Your task to perform on an android device: Go to CNN.com Image 0: 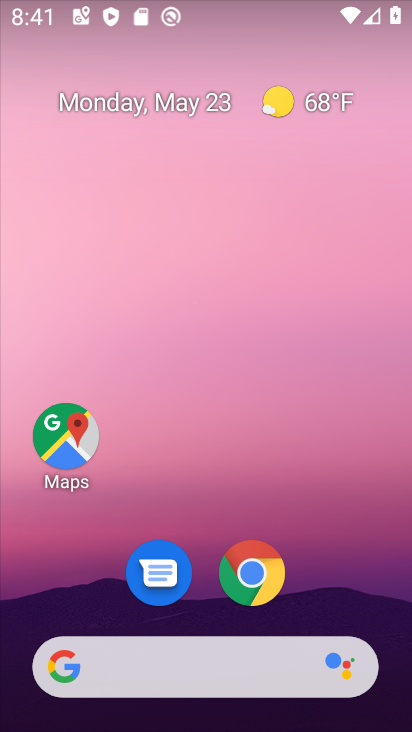
Step 0: click (261, 573)
Your task to perform on an android device: Go to CNN.com Image 1: 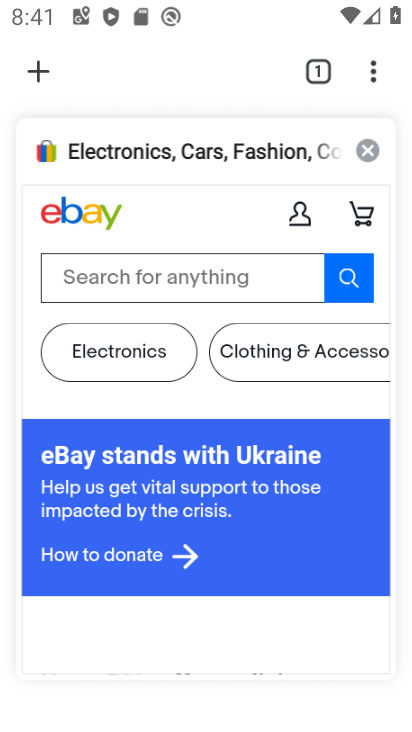
Step 1: click (32, 90)
Your task to perform on an android device: Go to CNN.com Image 2: 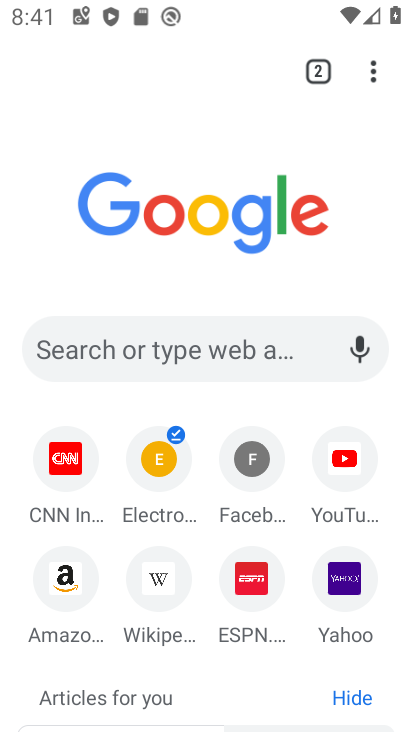
Step 2: click (81, 457)
Your task to perform on an android device: Go to CNN.com Image 3: 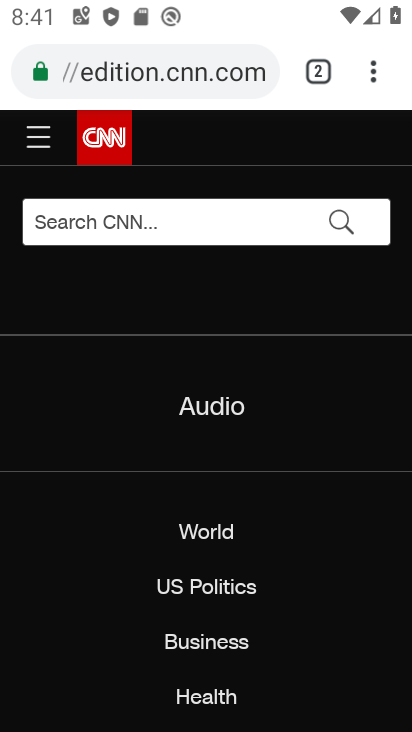
Step 3: task complete